Your task to perform on an android device: Open Yahoo.com Image 0: 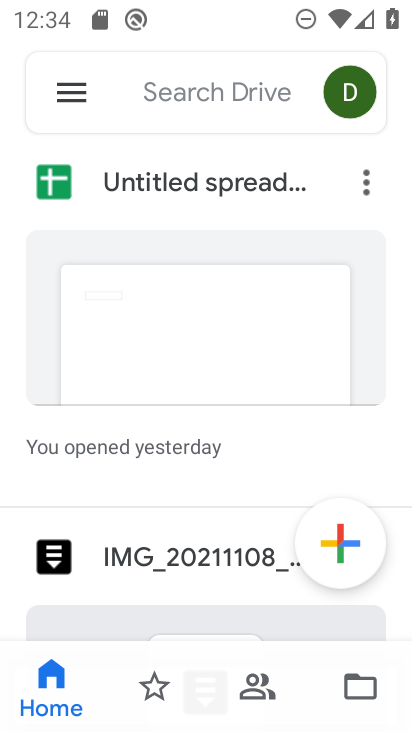
Step 0: press home button
Your task to perform on an android device: Open Yahoo.com Image 1: 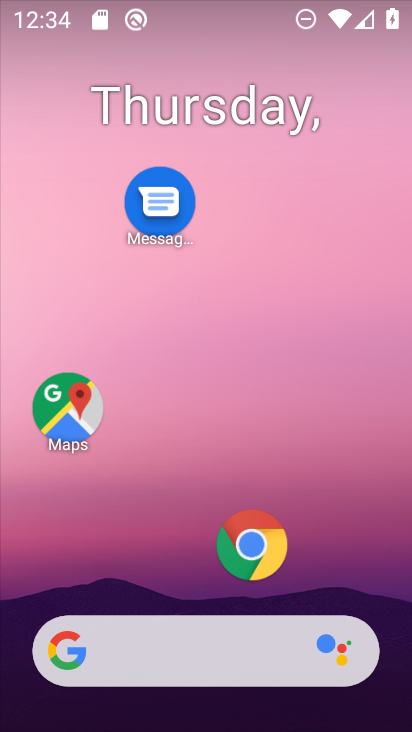
Step 1: click (247, 546)
Your task to perform on an android device: Open Yahoo.com Image 2: 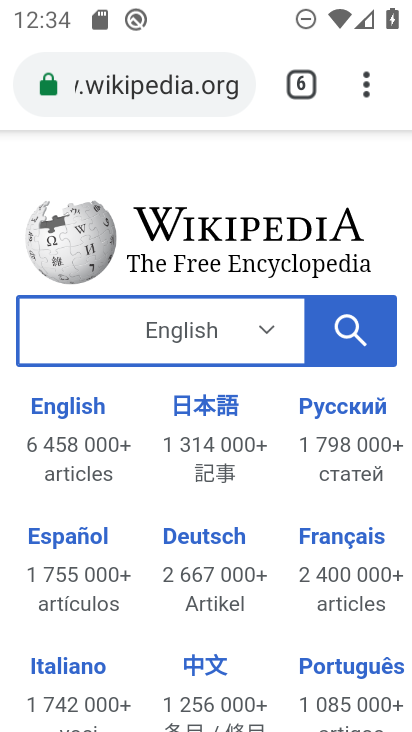
Step 2: click (295, 82)
Your task to perform on an android device: Open Yahoo.com Image 3: 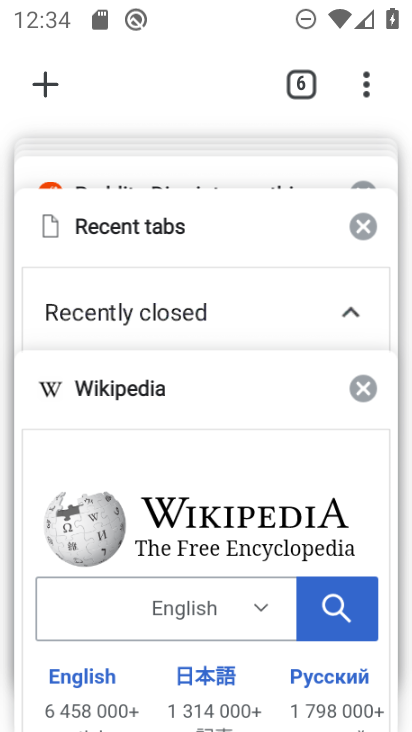
Step 3: click (52, 81)
Your task to perform on an android device: Open Yahoo.com Image 4: 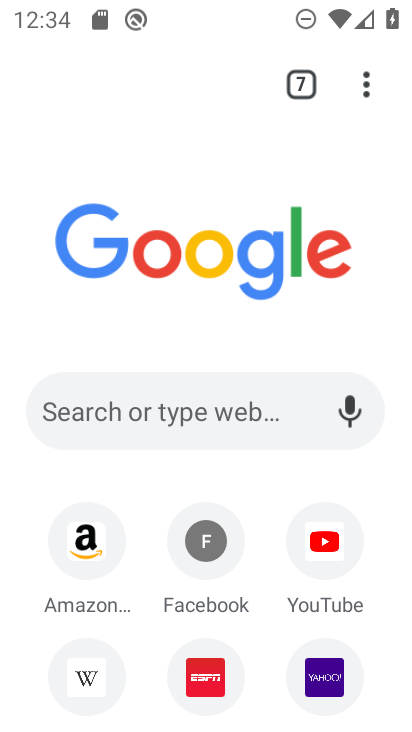
Step 4: click (305, 658)
Your task to perform on an android device: Open Yahoo.com Image 5: 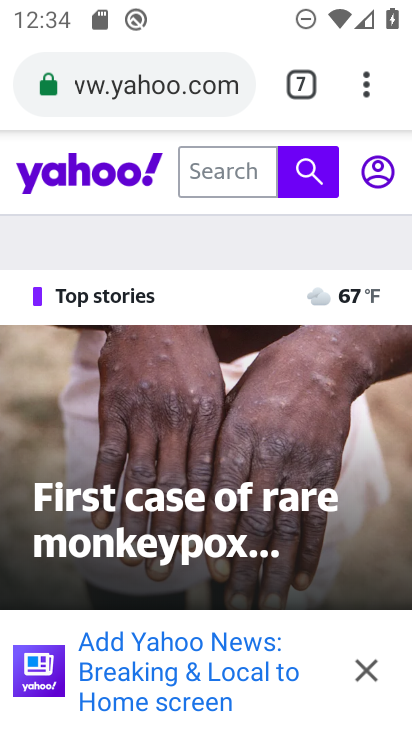
Step 5: task complete